Your task to perform on an android device: Open Reddit.com Image 0: 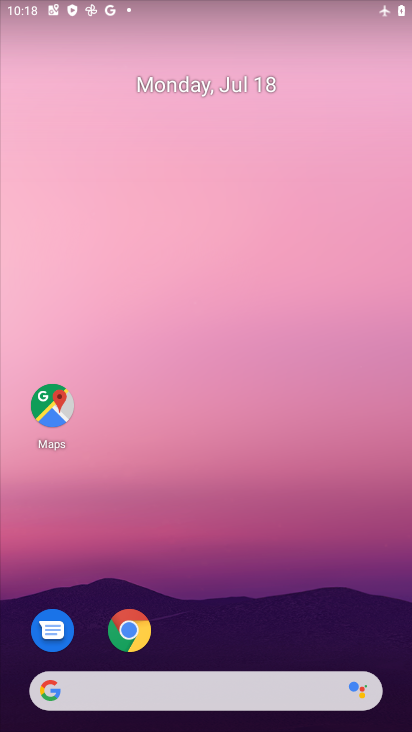
Step 0: drag from (361, 640) to (216, 60)
Your task to perform on an android device: Open Reddit.com Image 1: 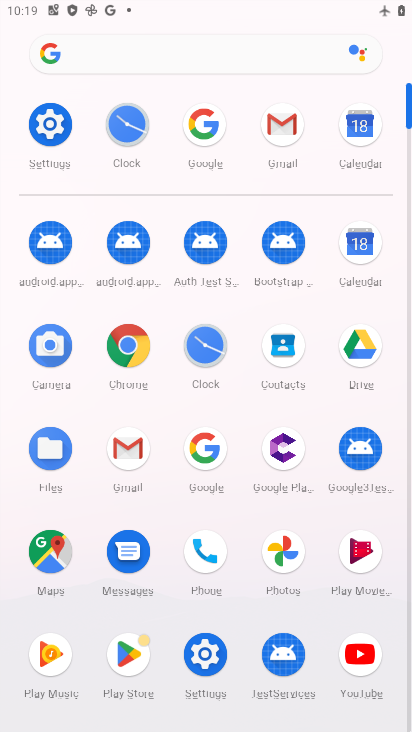
Step 1: click (190, 454)
Your task to perform on an android device: Open Reddit.com Image 2: 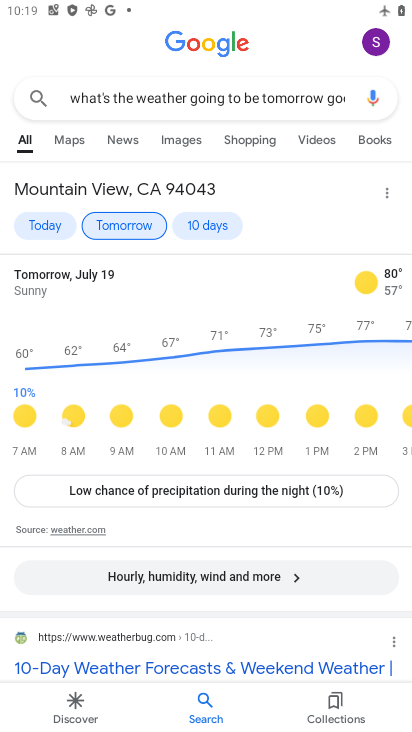
Step 2: press back button
Your task to perform on an android device: Open Reddit.com Image 3: 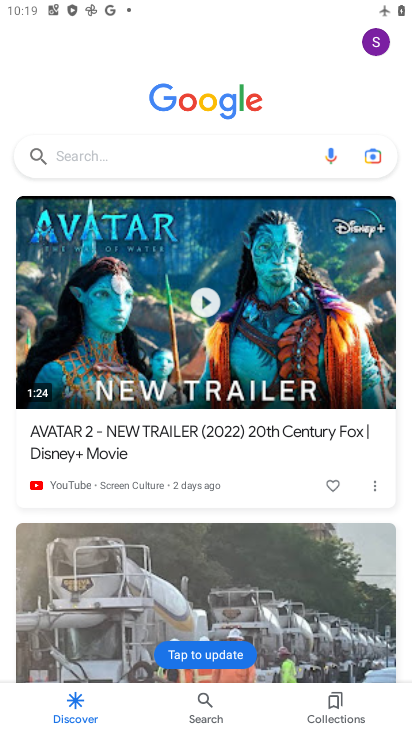
Step 3: click (159, 148)
Your task to perform on an android device: Open Reddit.com Image 4: 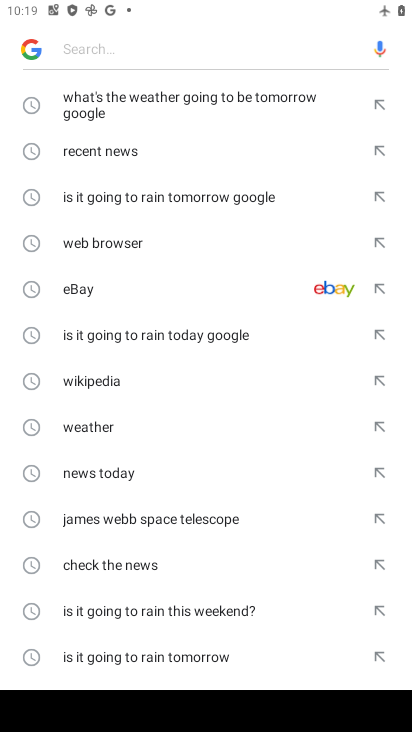
Step 4: type "Reddit.com"
Your task to perform on an android device: Open Reddit.com Image 5: 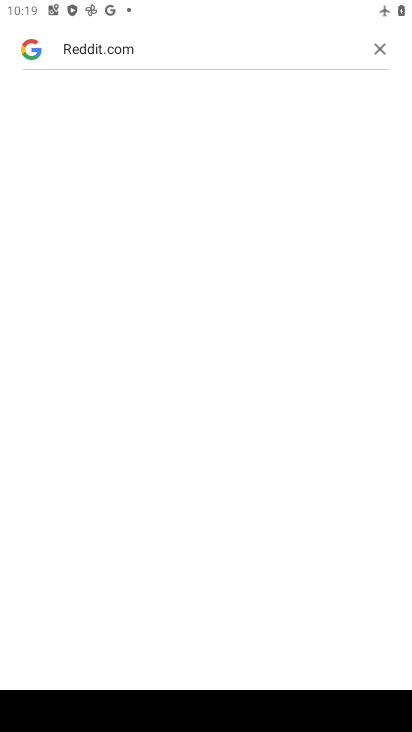
Step 5: task complete